Your task to perform on an android device: Open Maps and search for coffee Image 0: 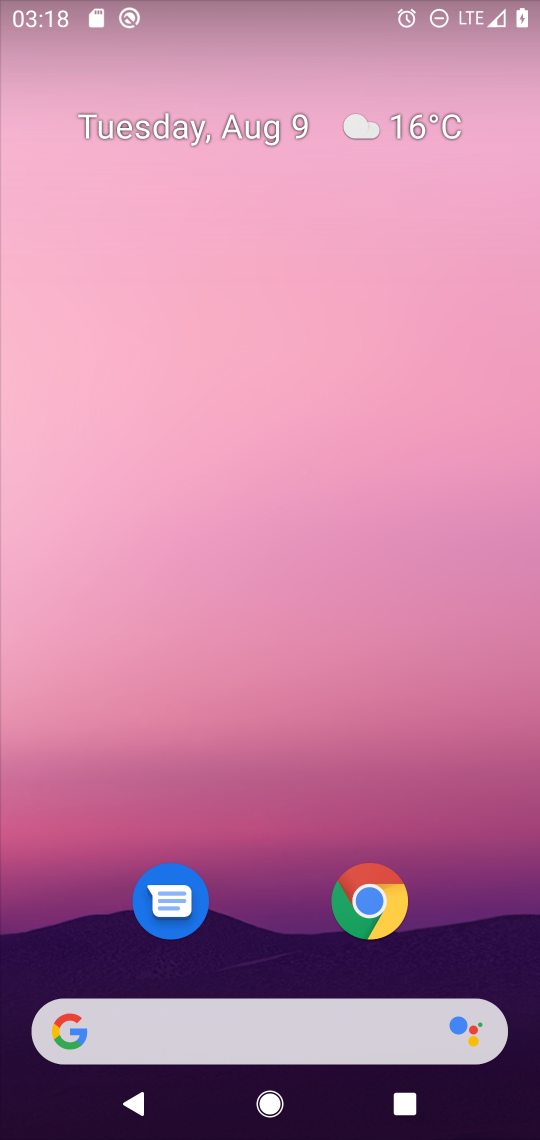
Step 0: drag from (499, 976) to (486, 323)
Your task to perform on an android device: Open Maps and search for coffee Image 1: 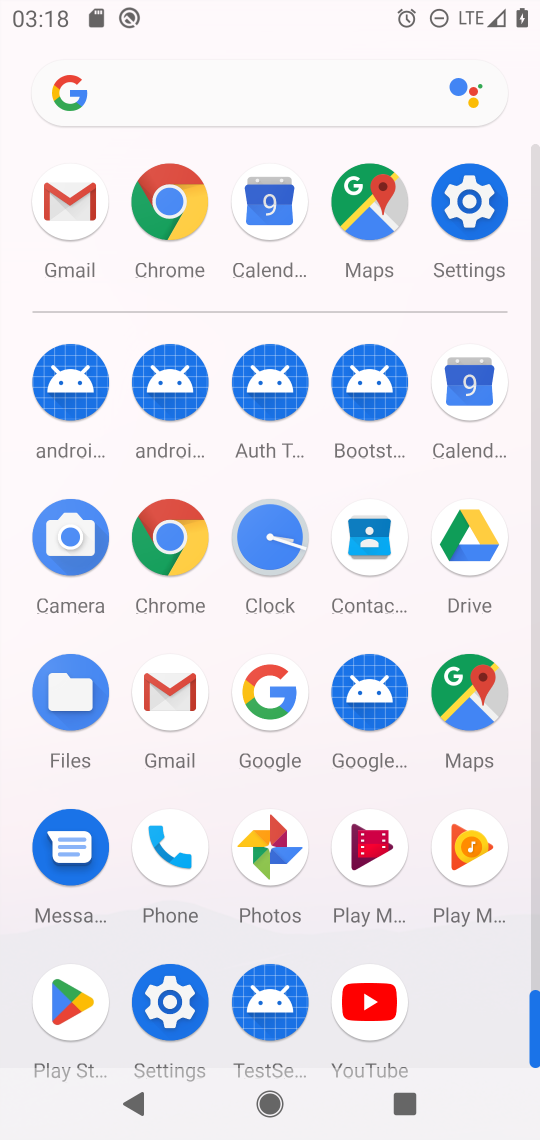
Step 1: click (469, 698)
Your task to perform on an android device: Open Maps and search for coffee Image 2: 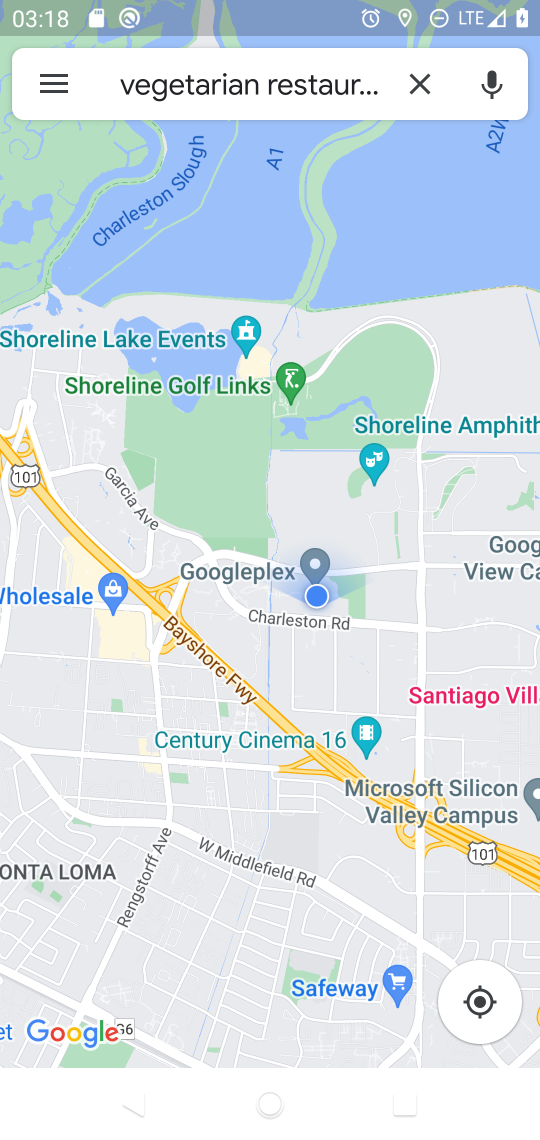
Step 2: click (416, 82)
Your task to perform on an android device: Open Maps and search for coffee Image 3: 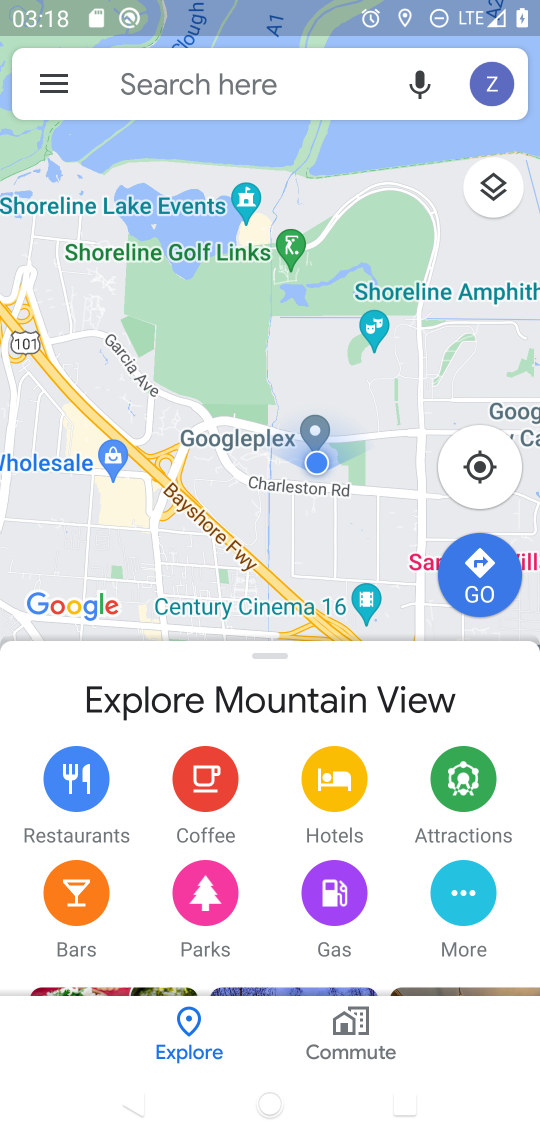
Step 3: click (252, 81)
Your task to perform on an android device: Open Maps and search for coffee Image 4: 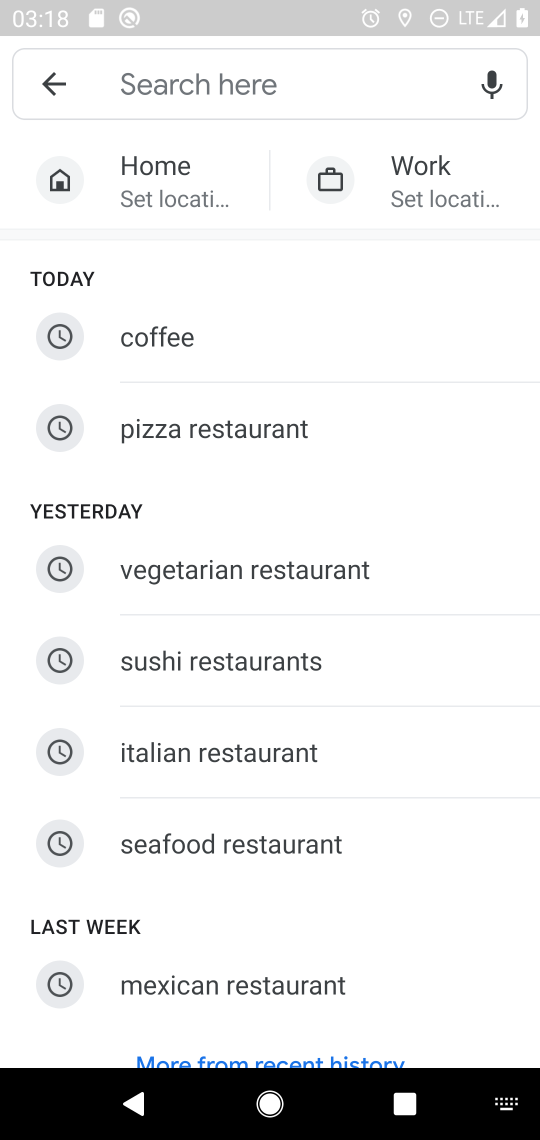
Step 4: type "coffee"
Your task to perform on an android device: Open Maps and search for coffee Image 5: 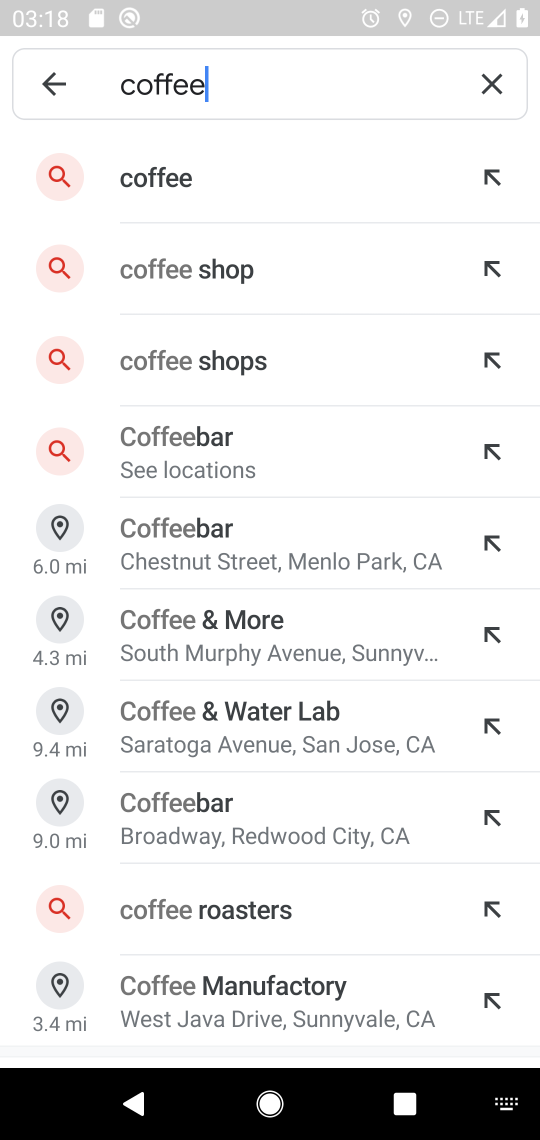
Step 5: click (181, 167)
Your task to perform on an android device: Open Maps and search for coffee Image 6: 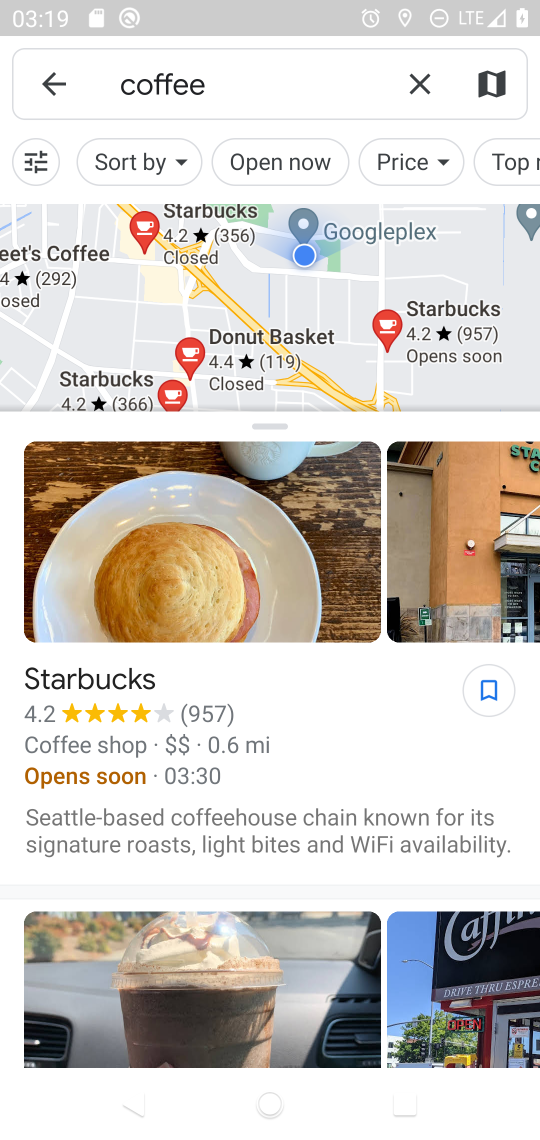
Step 6: task complete